Your task to perform on an android device: set the stopwatch Image 0: 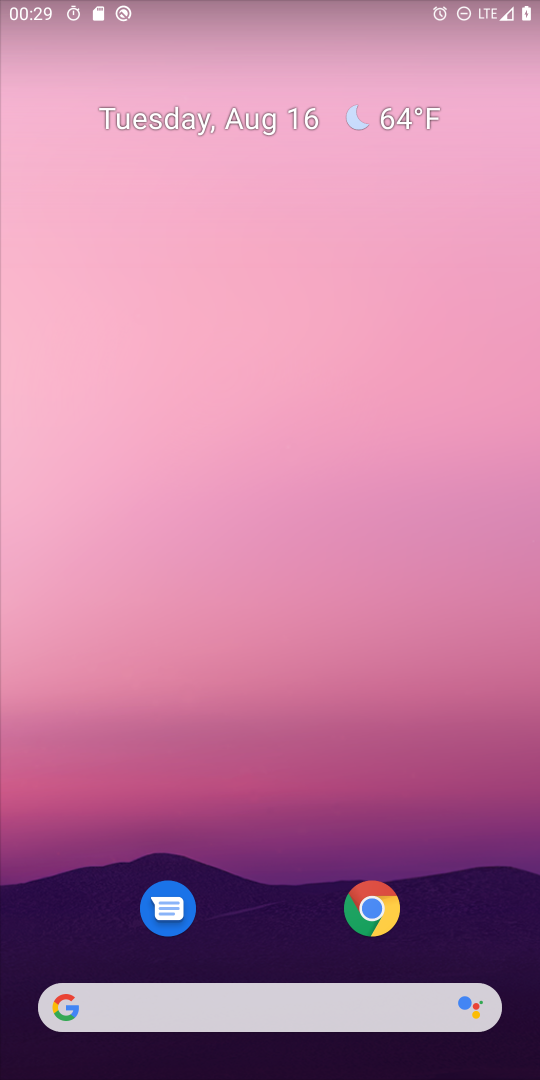
Step 0: drag from (231, 914) to (301, 28)
Your task to perform on an android device: set the stopwatch Image 1: 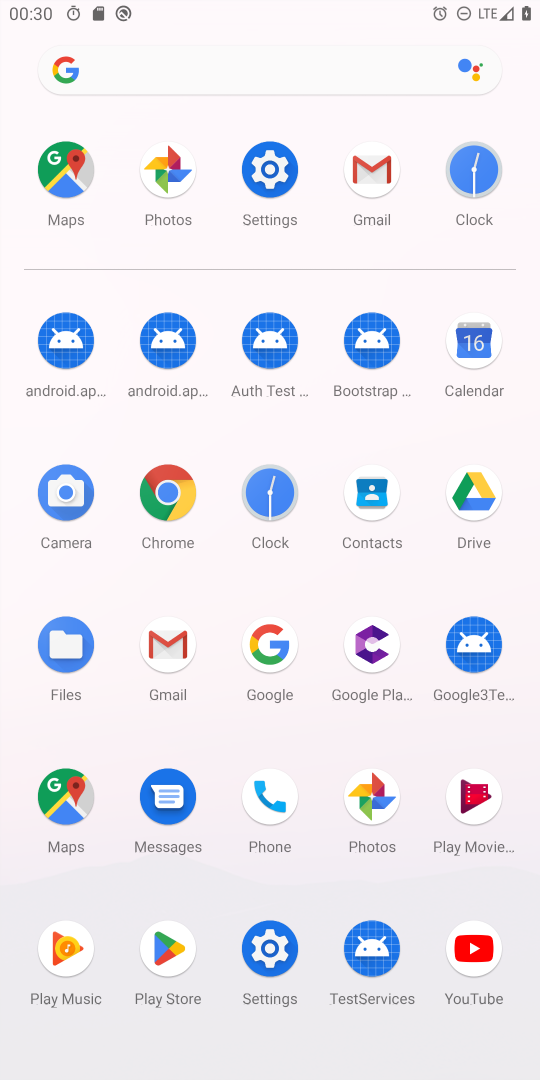
Step 1: click (247, 468)
Your task to perform on an android device: set the stopwatch Image 2: 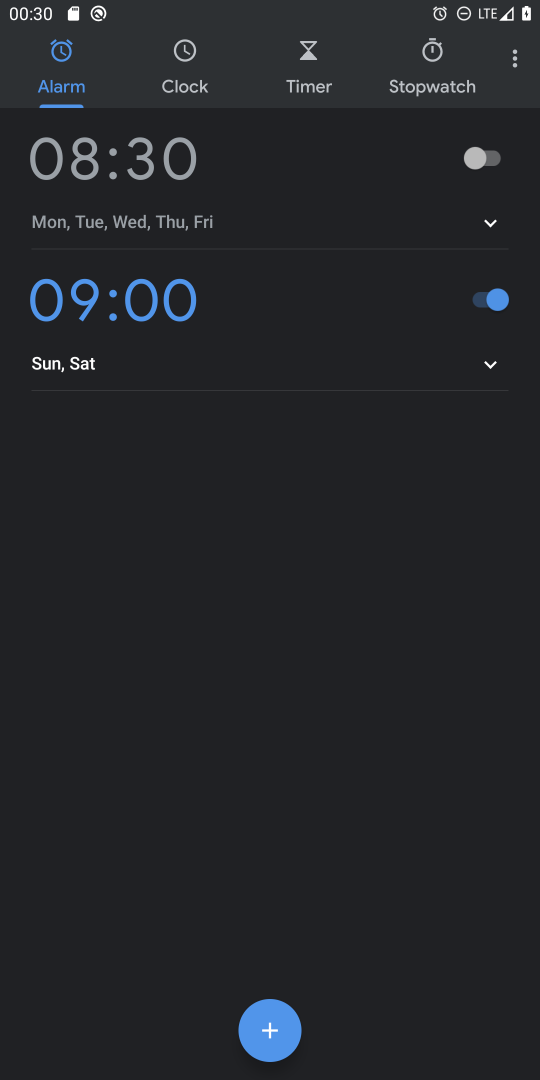
Step 2: click (472, 78)
Your task to perform on an android device: set the stopwatch Image 3: 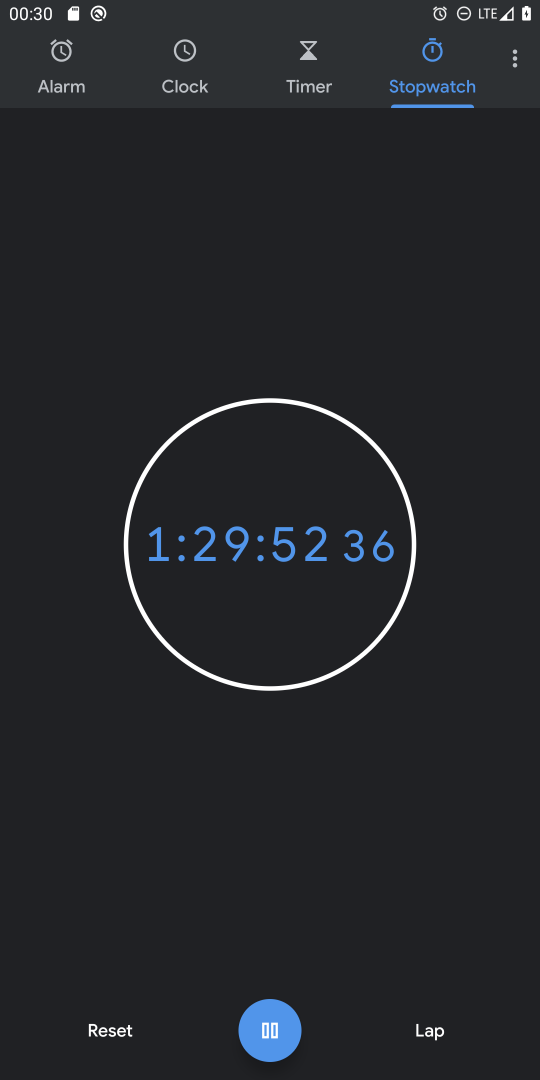
Step 3: click (117, 1039)
Your task to perform on an android device: set the stopwatch Image 4: 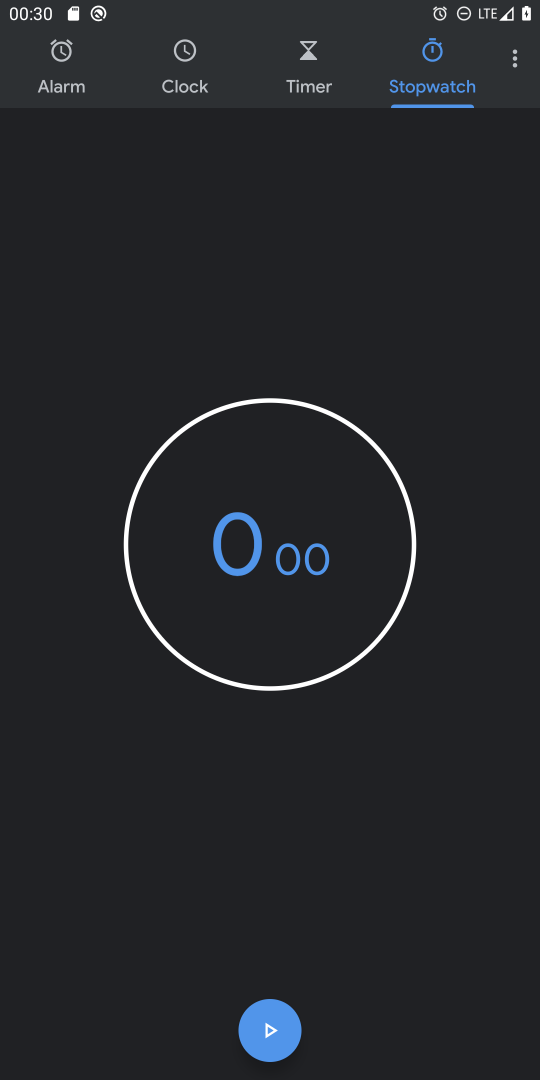
Step 4: click (251, 1040)
Your task to perform on an android device: set the stopwatch Image 5: 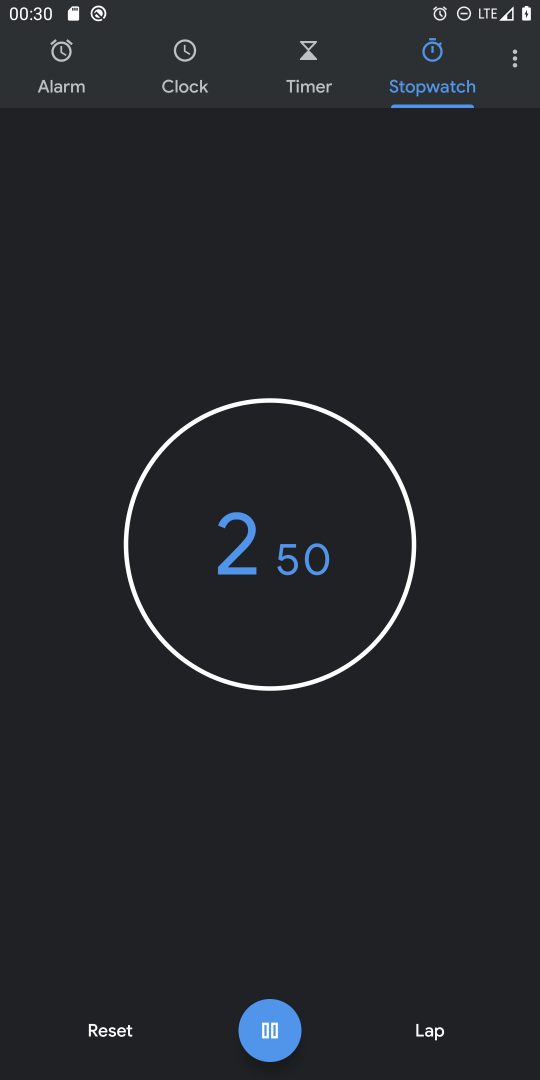
Step 5: task complete